Your task to perform on an android device: change the clock display to digital Image 0: 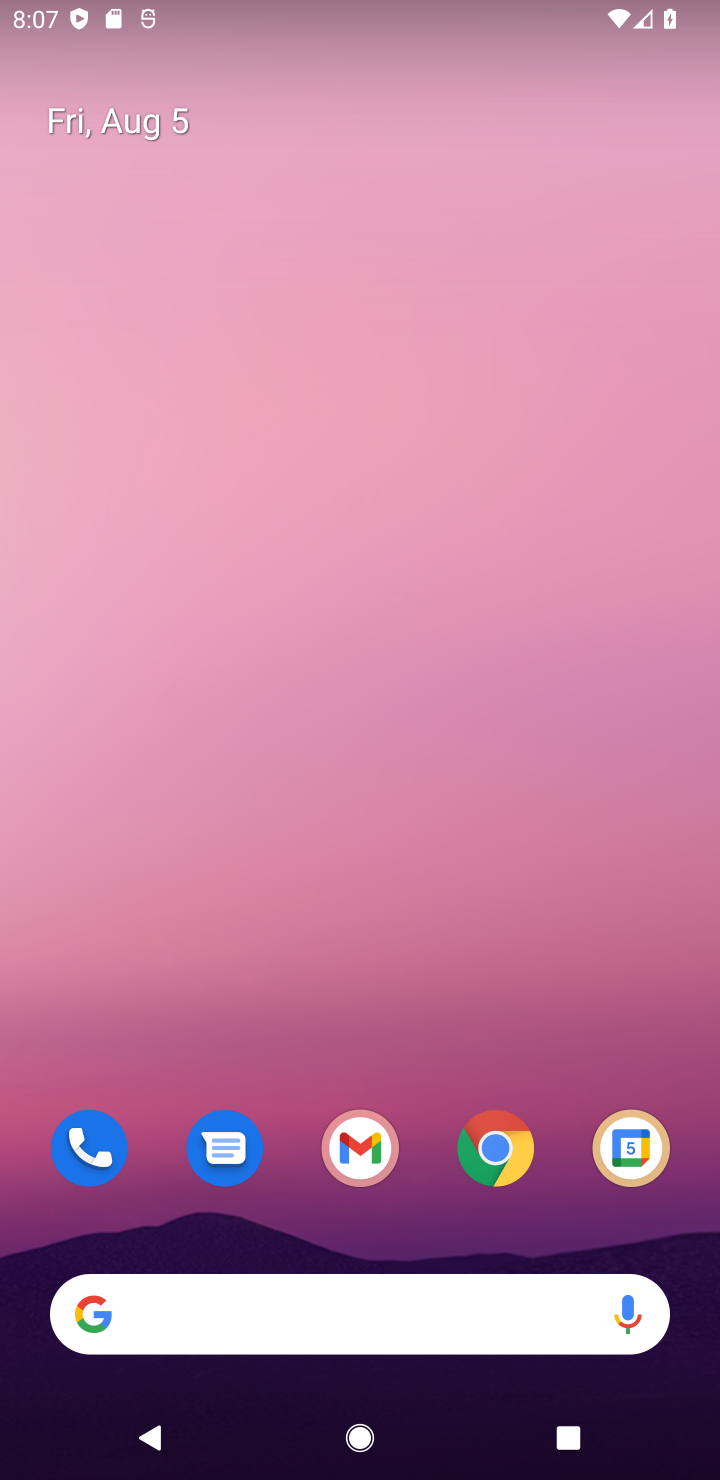
Step 0: task complete